Your task to perform on an android device: change notifications settings Image 0: 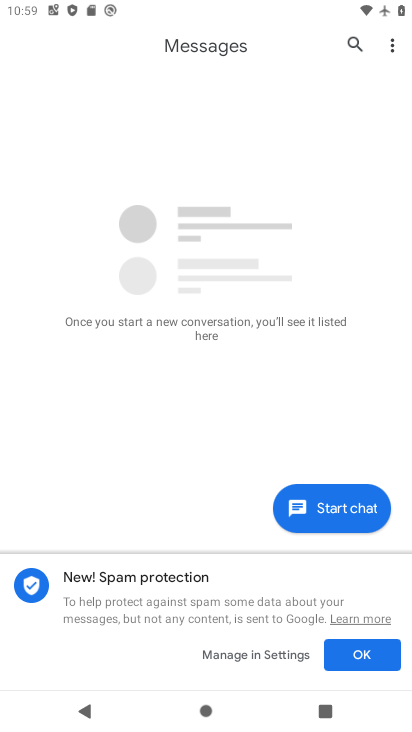
Step 0: press home button
Your task to perform on an android device: change notifications settings Image 1: 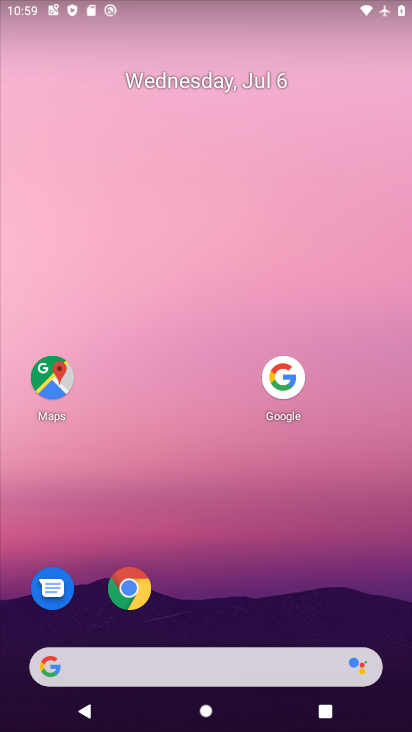
Step 1: drag from (221, 654) to (333, 41)
Your task to perform on an android device: change notifications settings Image 2: 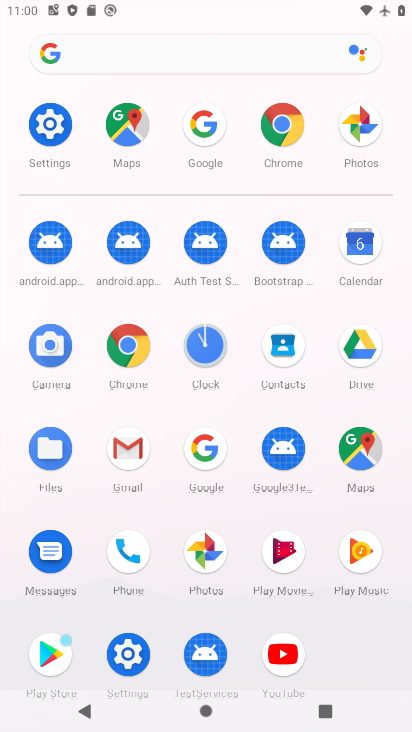
Step 2: click (50, 132)
Your task to perform on an android device: change notifications settings Image 3: 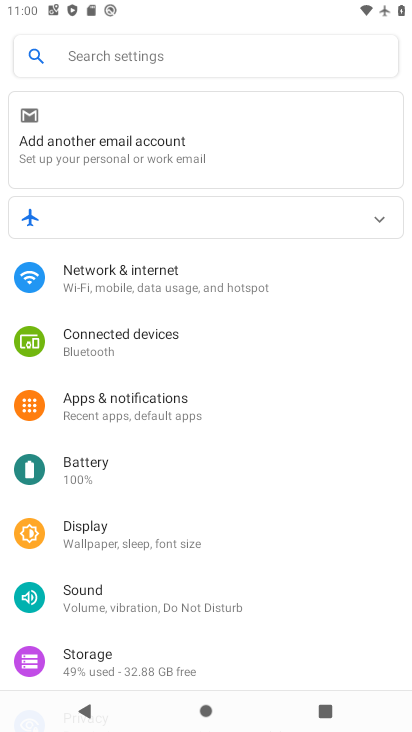
Step 3: click (135, 395)
Your task to perform on an android device: change notifications settings Image 4: 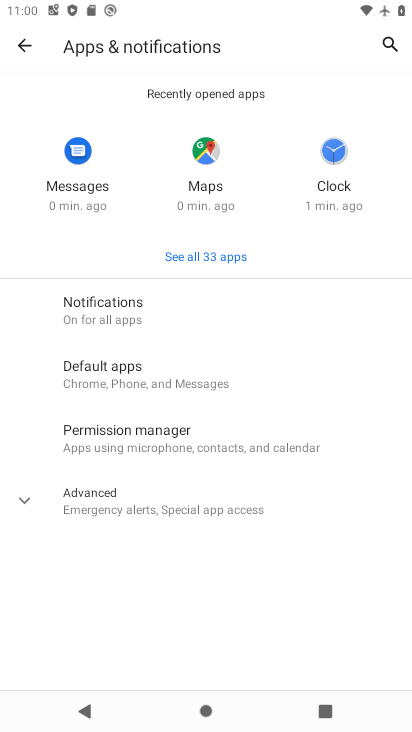
Step 4: click (133, 302)
Your task to perform on an android device: change notifications settings Image 5: 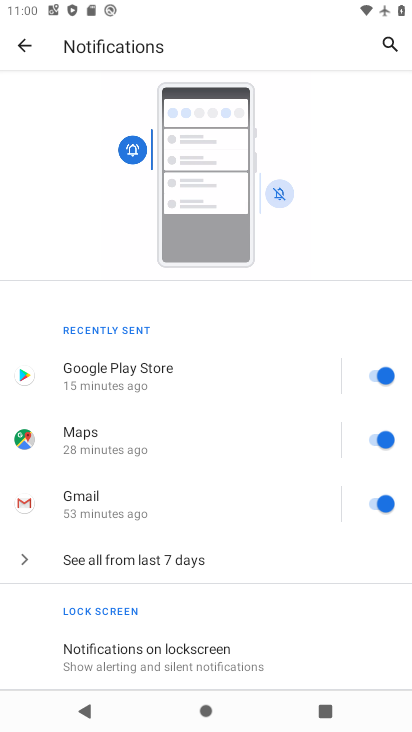
Step 5: click (371, 365)
Your task to perform on an android device: change notifications settings Image 6: 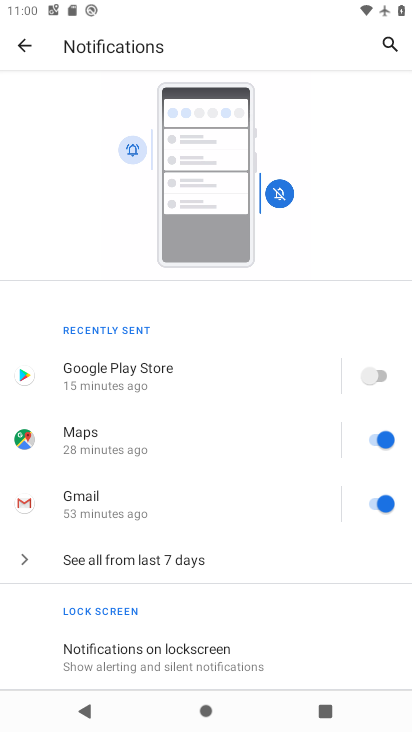
Step 6: task complete